Your task to perform on an android device: add a label to a message in the gmail app Image 0: 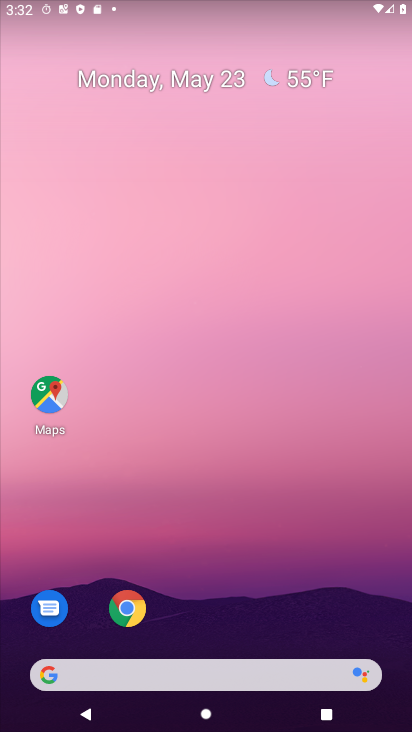
Step 0: drag from (316, 518) to (179, 41)
Your task to perform on an android device: add a label to a message in the gmail app Image 1: 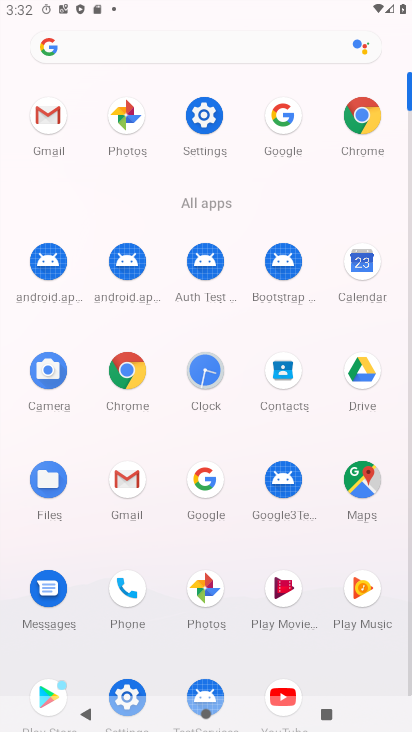
Step 1: click (121, 484)
Your task to perform on an android device: add a label to a message in the gmail app Image 2: 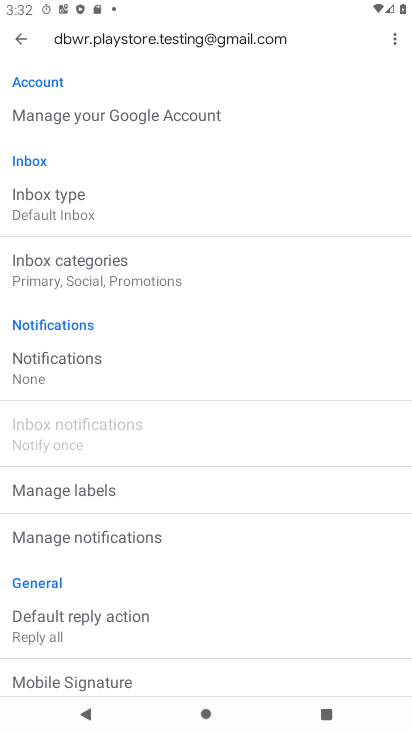
Step 2: click (17, 47)
Your task to perform on an android device: add a label to a message in the gmail app Image 3: 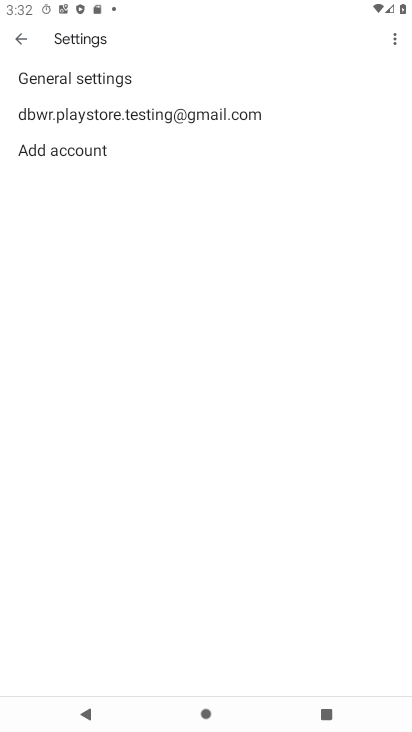
Step 3: click (23, 45)
Your task to perform on an android device: add a label to a message in the gmail app Image 4: 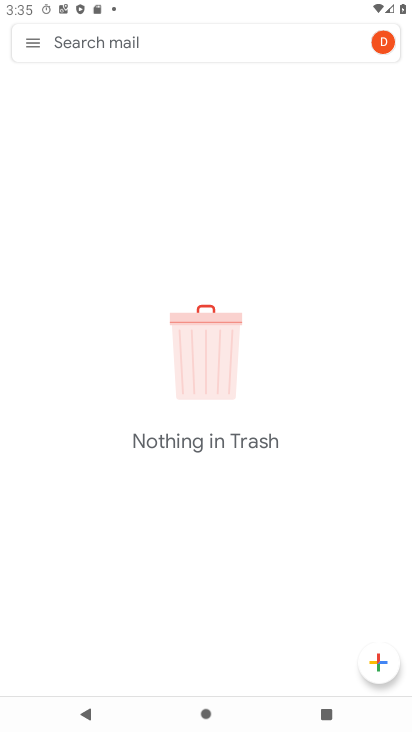
Step 4: task complete